Your task to perform on an android device: remove spam from my inbox in the gmail app Image 0: 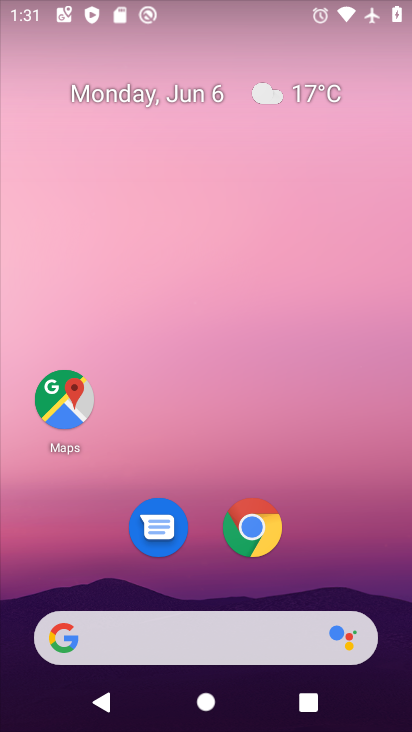
Step 0: drag from (313, 540) to (227, 15)
Your task to perform on an android device: remove spam from my inbox in the gmail app Image 1: 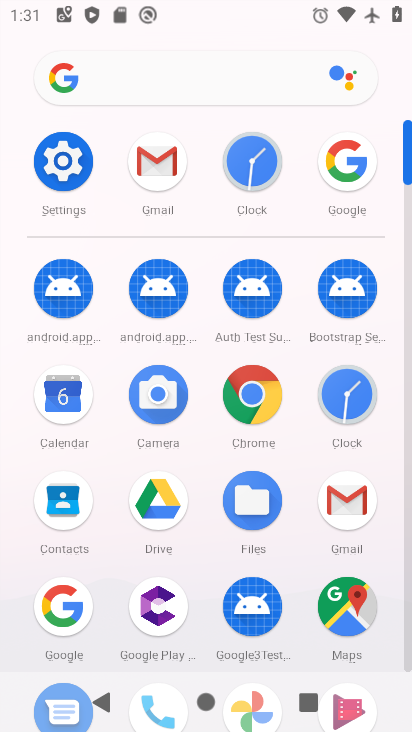
Step 1: click (148, 156)
Your task to perform on an android device: remove spam from my inbox in the gmail app Image 2: 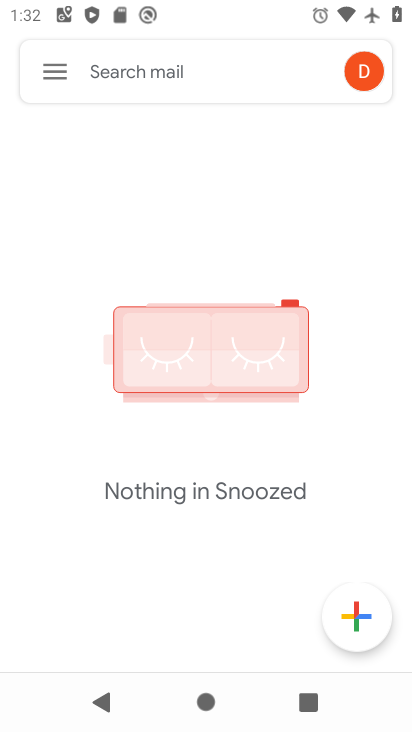
Step 2: click (52, 72)
Your task to perform on an android device: remove spam from my inbox in the gmail app Image 3: 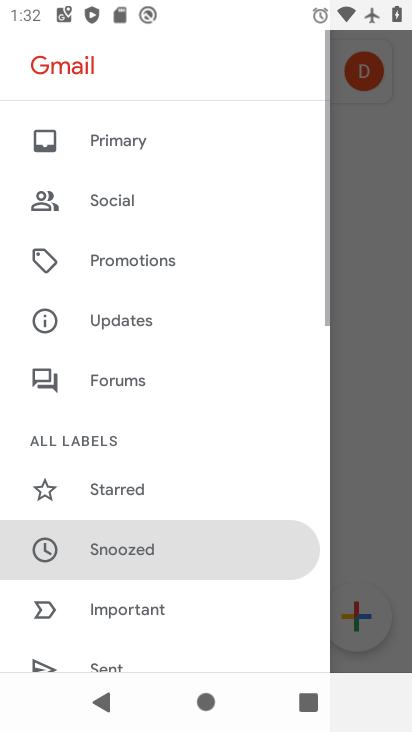
Step 3: drag from (202, 488) to (140, 20)
Your task to perform on an android device: remove spam from my inbox in the gmail app Image 4: 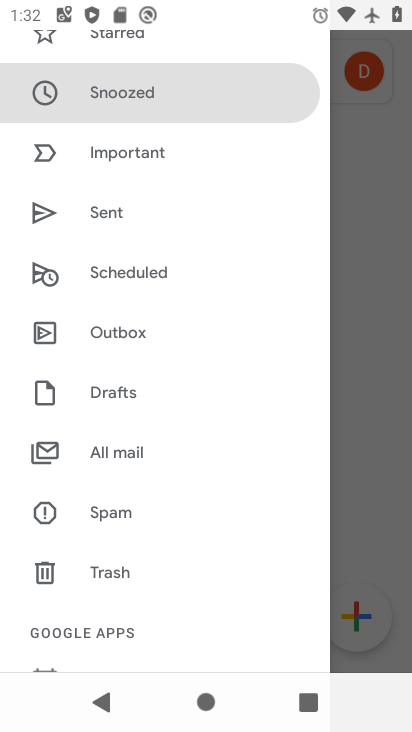
Step 4: click (142, 512)
Your task to perform on an android device: remove spam from my inbox in the gmail app Image 5: 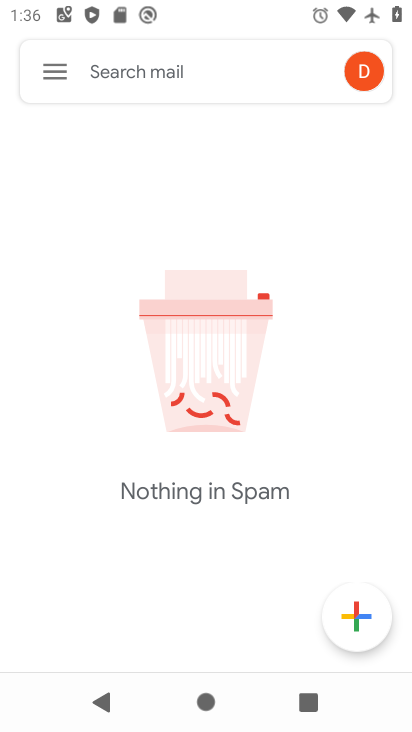
Step 5: task complete